Your task to perform on an android device: check android version Image 0: 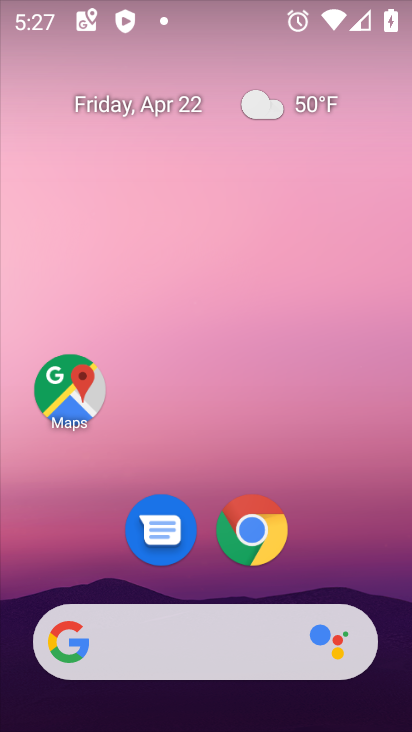
Step 0: drag from (339, 545) to (348, 173)
Your task to perform on an android device: check android version Image 1: 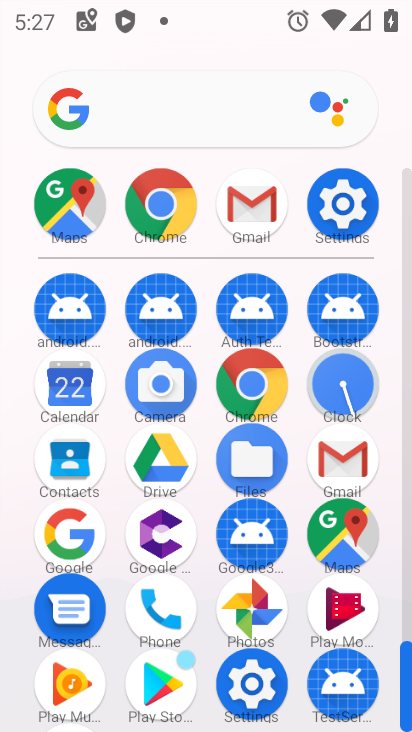
Step 1: drag from (291, 242) to (291, 102)
Your task to perform on an android device: check android version Image 2: 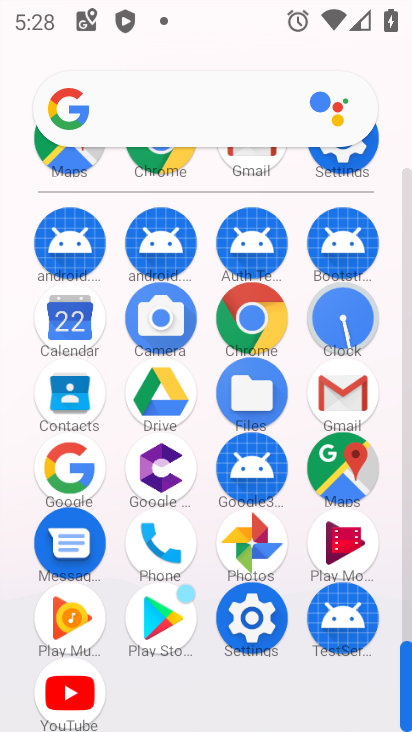
Step 2: click (255, 621)
Your task to perform on an android device: check android version Image 3: 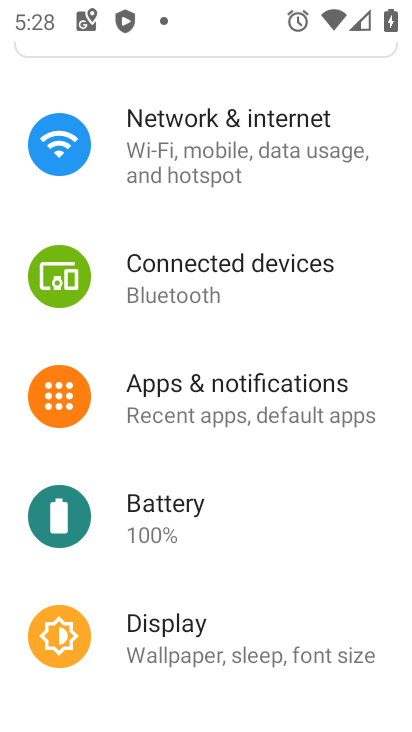
Step 3: drag from (310, 682) to (331, 195)
Your task to perform on an android device: check android version Image 4: 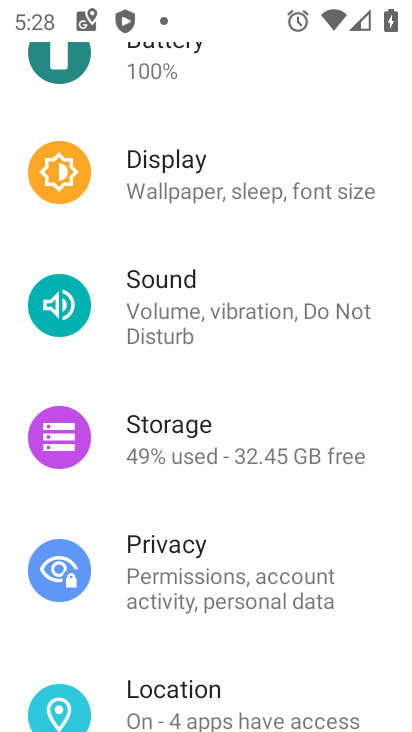
Step 4: drag from (308, 660) to (340, 241)
Your task to perform on an android device: check android version Image 5: 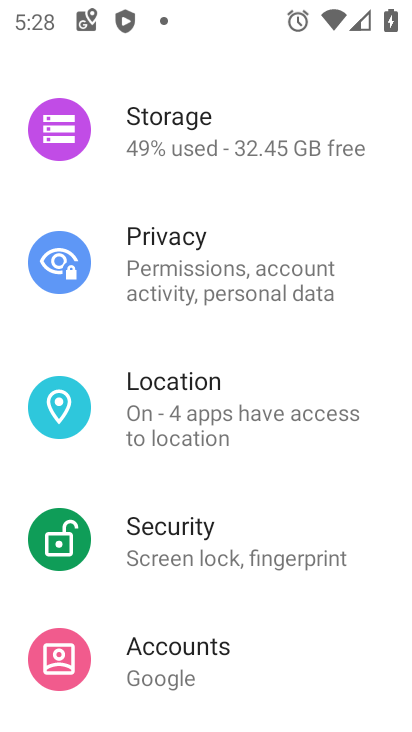
Step 5: drag from (299, 647) to (345, 265)
Your task to perform on an android device: check android version Image 6: 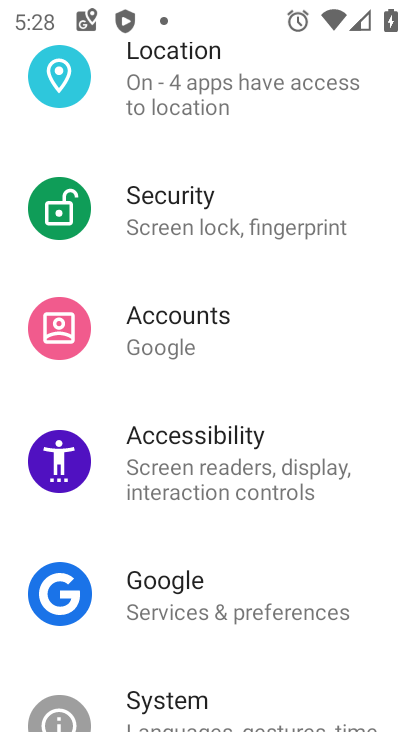
Step 6: drag from (282, 681) to (327, 291)
Your task to perform on an android device: check android version Image 7: 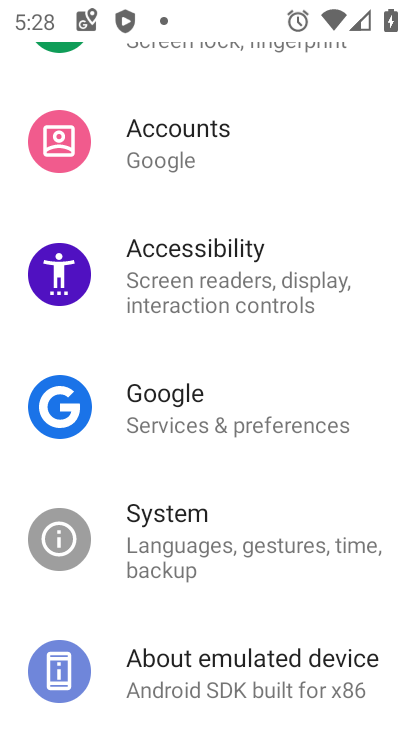
Step 7: click (274, 668)
Your task to perform on an android device: check android version Image 8: 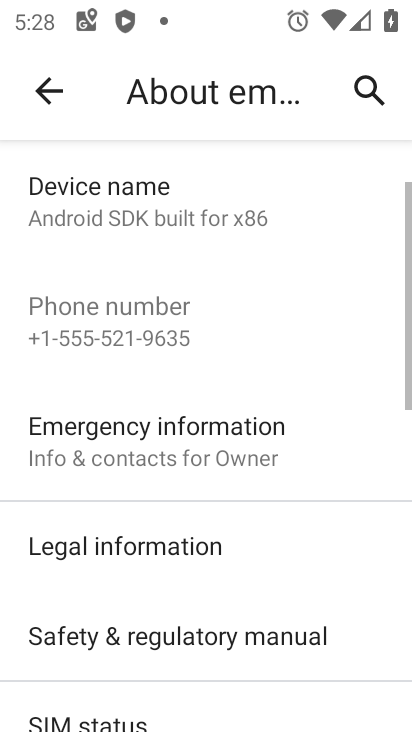
Step 8: drag from (302, 563) to (286, 225)
Your task to perform on an android device: check android version Image 9: 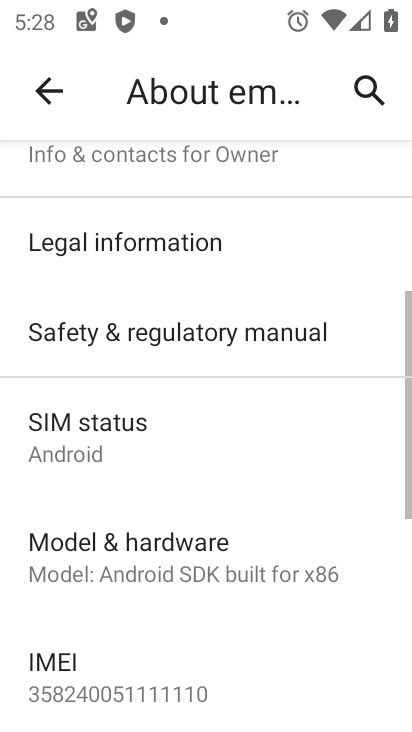
Step 9: drag from (316, 423) to (295, 614)
Your task to perform on an android device: check android version Image 10: 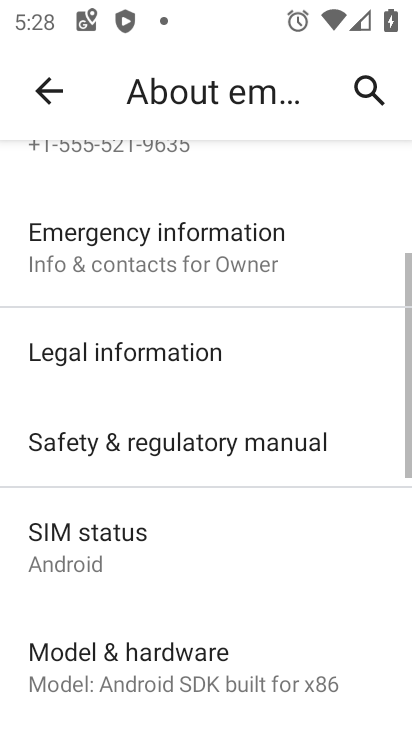
Step 10: drag from (310, 363) to (260, 574)
Your task to perform on an android device: check android version Image 11: 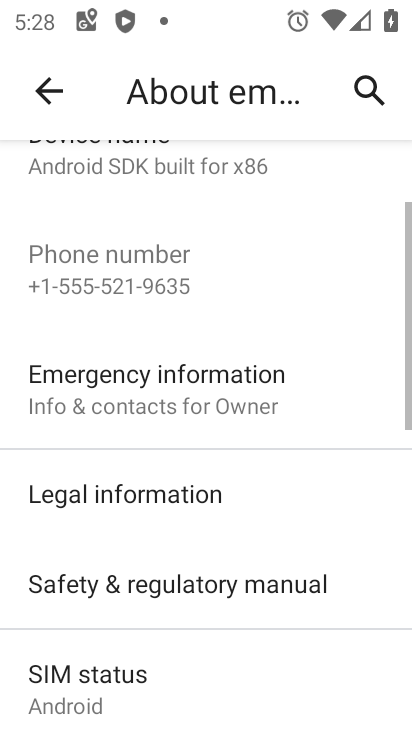
Step 11: drag from (276, 321) to (254, 601)
Your task to perform on an android device: check android version Image 12: 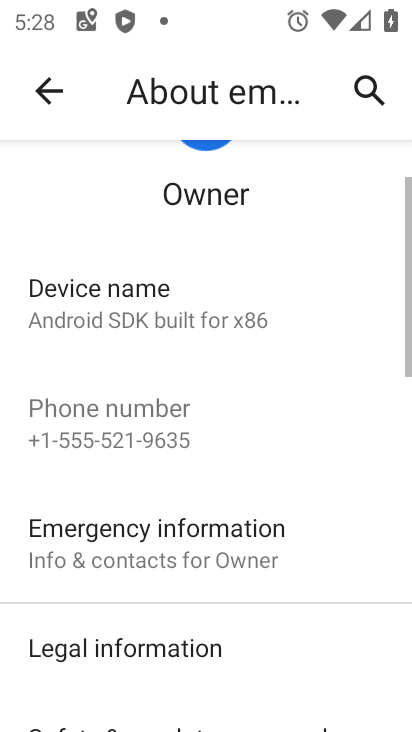
Step 12: drag from (281, 401) to (270, 526)
Your task to perform on an android device: check android version Image 13: 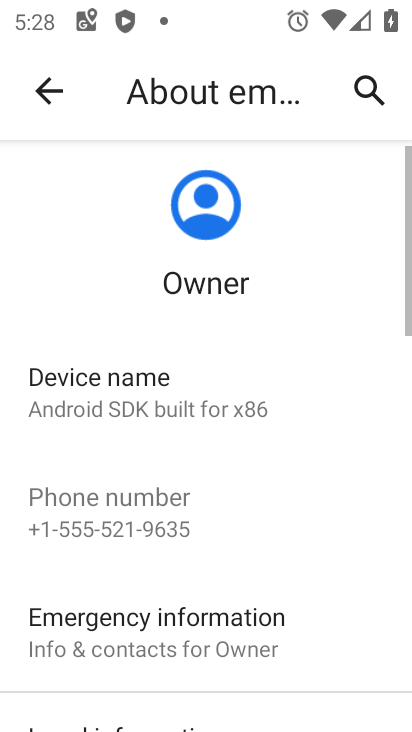
Step 13: drag from (292, 574) to (319, 232)
Your task to perform on an android device: check android version Image 14: 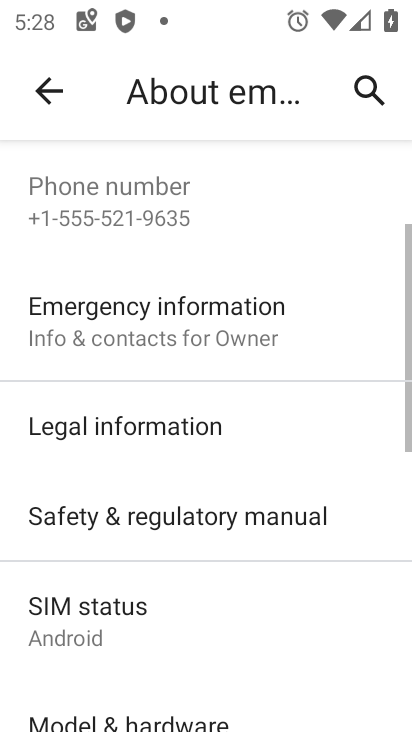
Step 14: drag from (251, 633) to (336, 239)
Your task to perform on an android device: check android version Image 15: 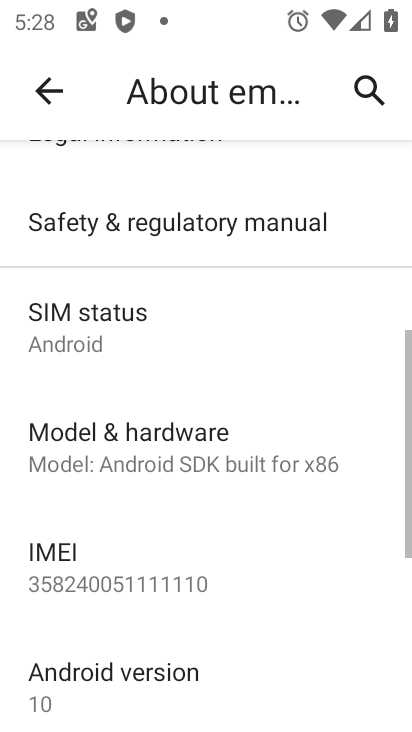
Step 15: drag from (286, 660) to (325, 396)
Your task to perform on an android device: check android version Image 16: 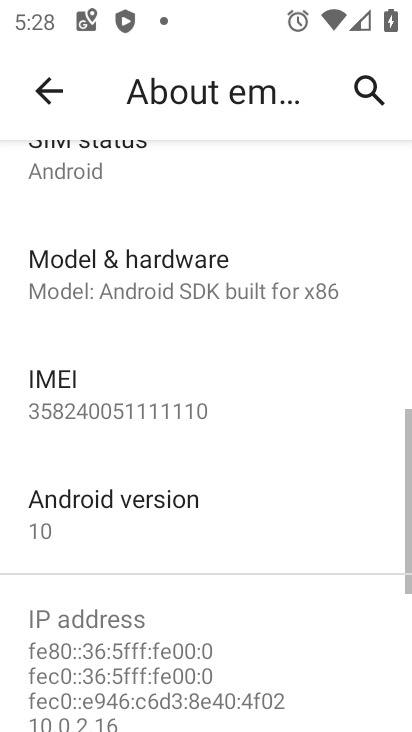
Step 16: click (151, 495)
Your task to perform on an android device: check android version Image 17: 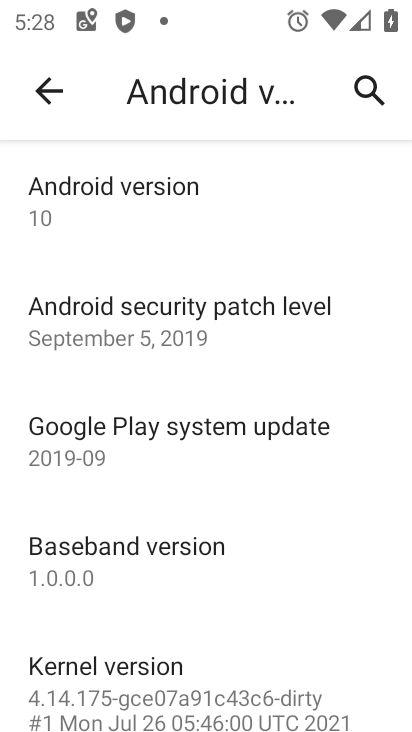
Step 17: task complete